Your task to perform on an android device: What's the weather today? Image 0: 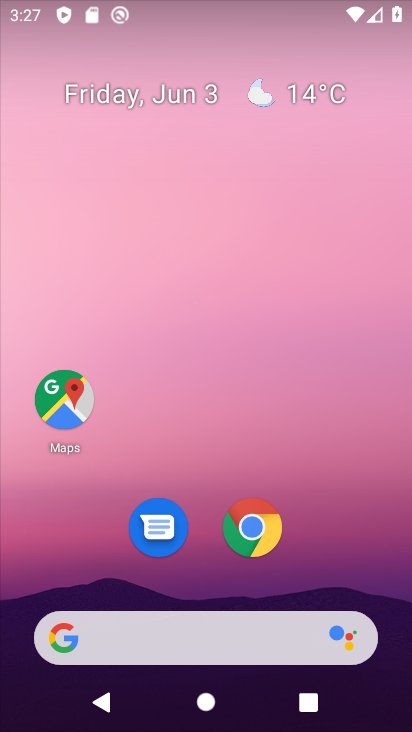
Step 0: drag from (319, 570) to (256, 94)
Your task to perform on an android device: What's the weather today? Image 1: 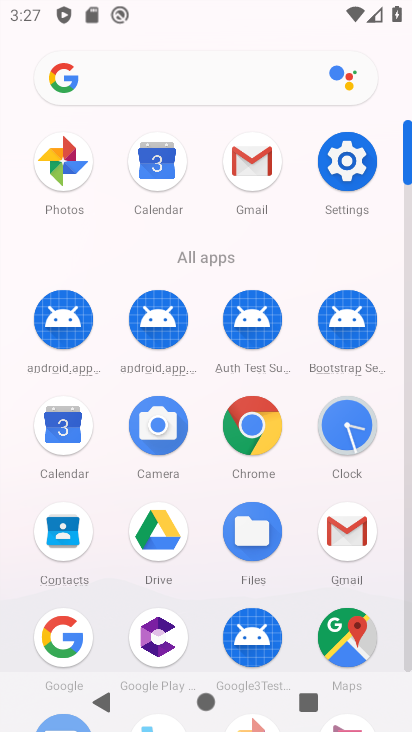
Step 1: click (58, 635)
Your task to perform on an android device: What's the weather today? Image 2: 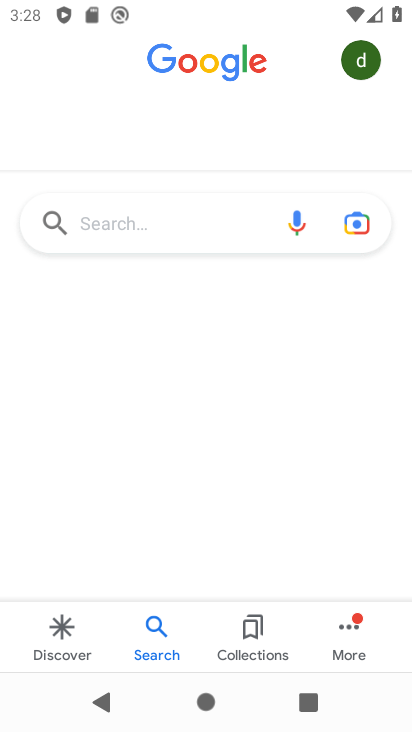
Step 2: click (158, 232)
Your task to perform on an android device: What's the weather today? Image 3: 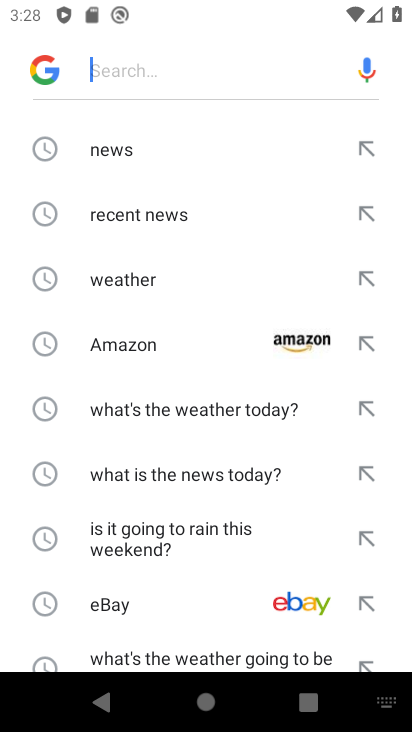
Step 3: click (140, 280)
Your task to perform on an android device: What's the weather today? Image 4: 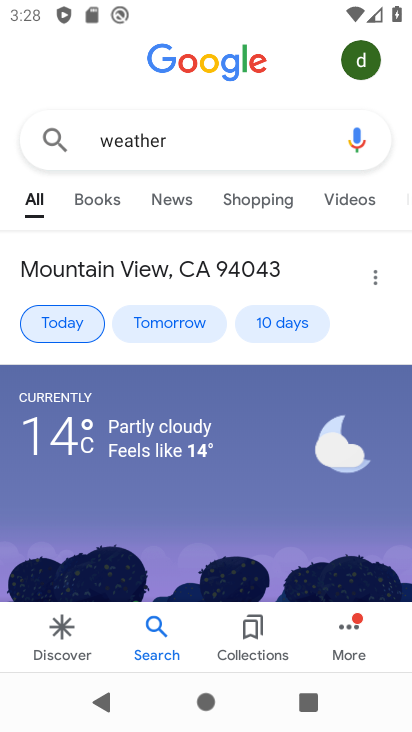
Step 4: task complete